Your task to perform on an android device: Go to Reddit.com Image 0: 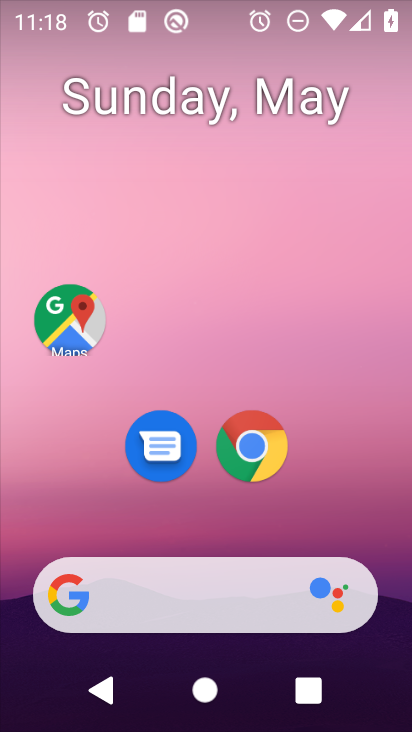
Step 0: drag from (339, 506) to (230, 14)
Your task to perform on an android device: Go to Reddit.com Image 1: 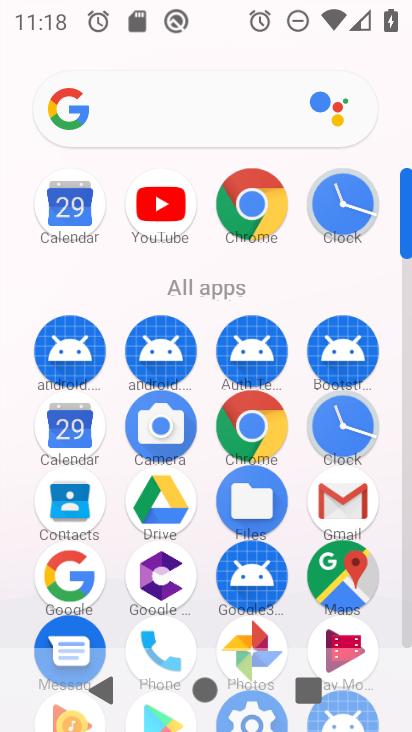
Step 1: drag from (2, 550) to (14, 183)
Your task to perform on an android device: Go to Reddit.com Image 2: 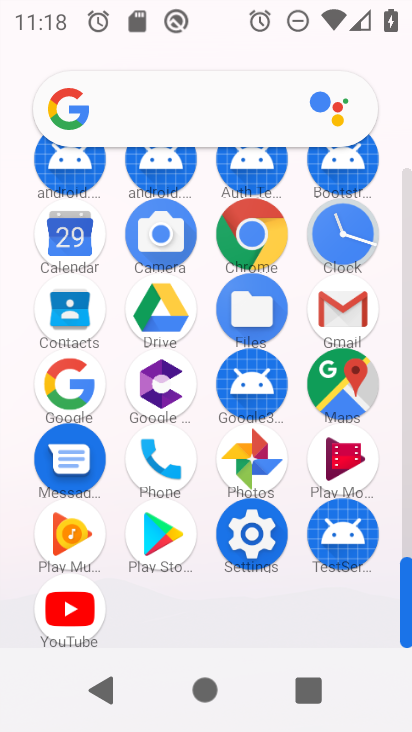
Step 2: click (256, 234)
Your task to perform on an android device: Go to Reddit.com Image 3: 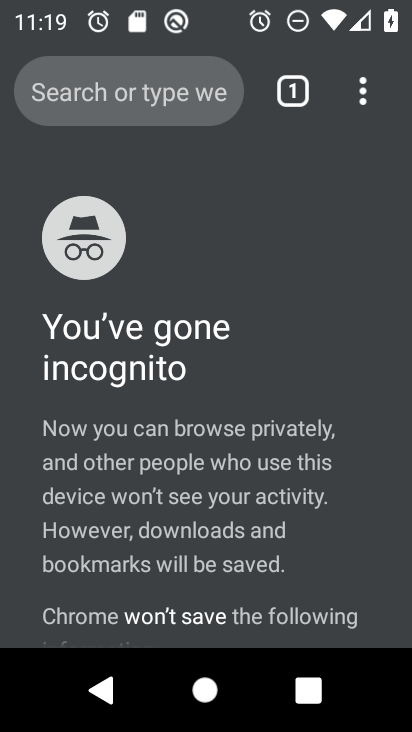
Step 3: click (155, 89)
Your task to perform on an android device: Go to Reddit.com Image 4: 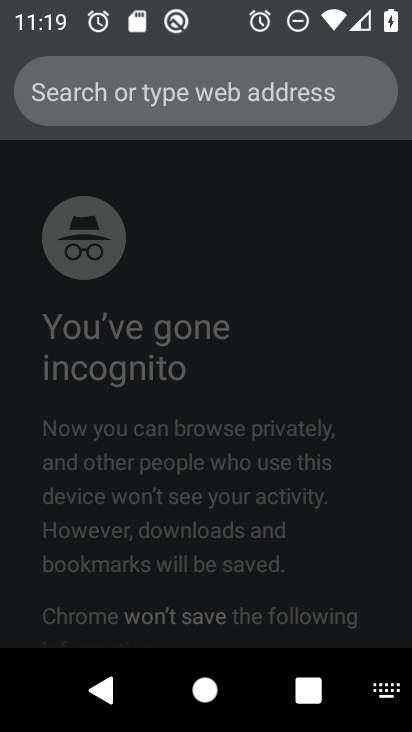
Step 4: type " Reddit.com"
Your task to perform on an android device: Go to Reddit.com Image 5: 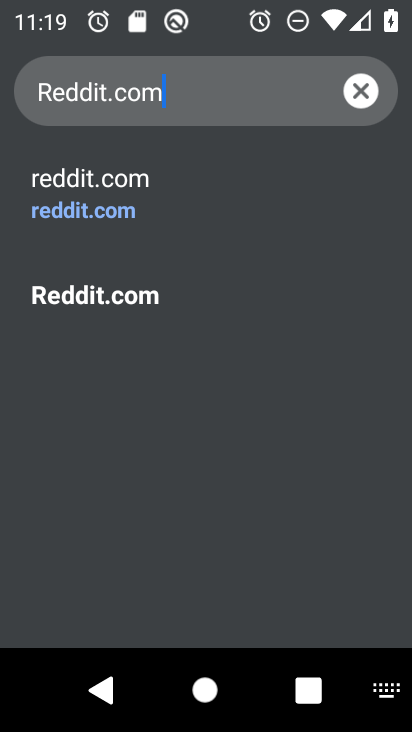
Step 5: type ""
Your task to perform on an android device: Go to Reddit.com Image 6: 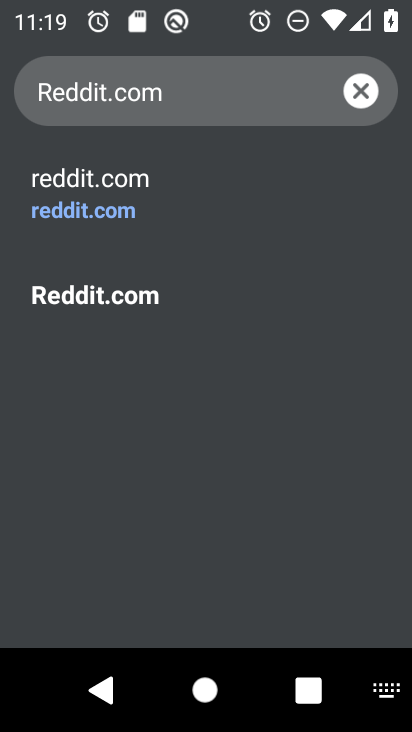
Step 6: click (109, 203)
Your task to perform on an android device: Go to Reddit.com Image 7: 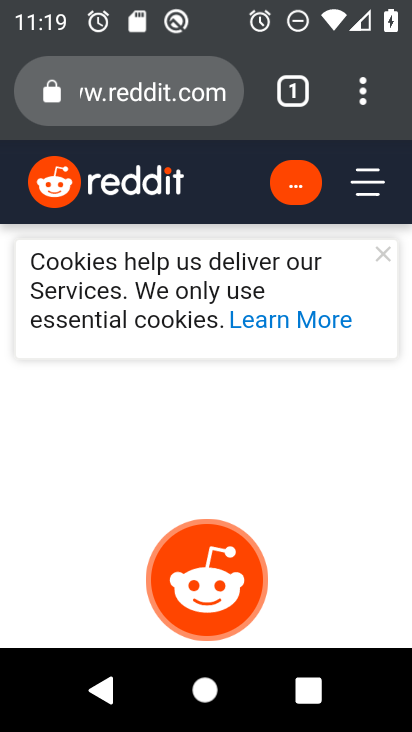
Step 7: drag from (297, 554) to (270, 142)
Your task to perform on an android device: Go to Reddit.com Image 8: 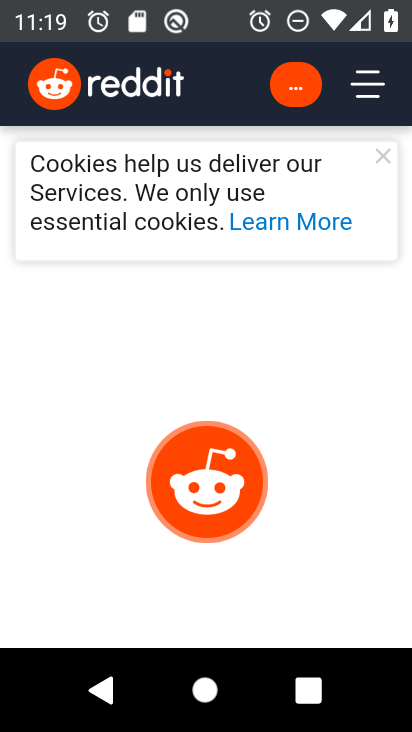
Step 8: drag from (317, 497) to (324, 152)
Your task to perform on an android device: Go to Reddit.com Image 9: 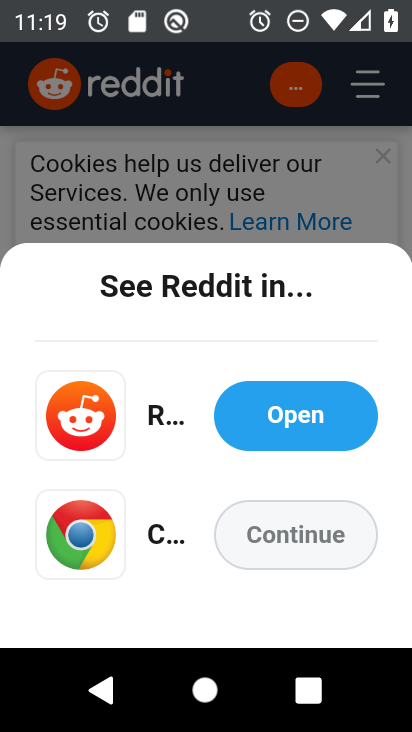
Step 9: click (212, 159)
Your task to perform on an android device: Go to Reddit.com Image 10: 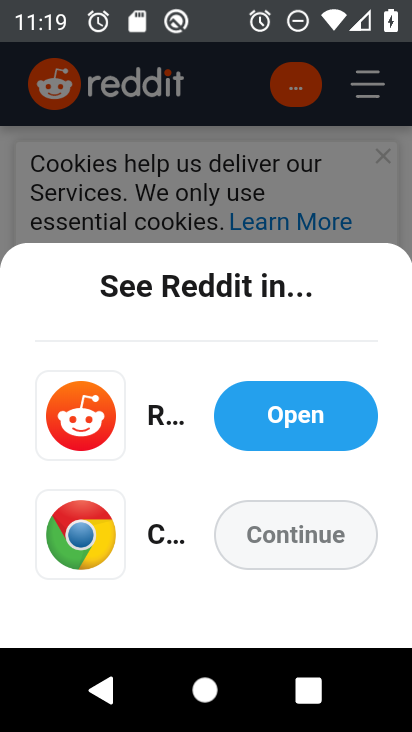
Step 10: task complete